Your task to perform on an android device: turn off picture-in-picture Image 0: 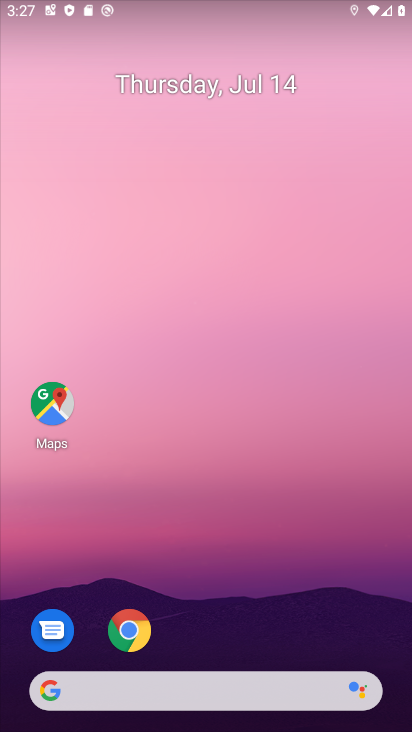
Step 0: click (132, 632)
Your task to perform on an android device: turn off picture-in-picture Image 1: 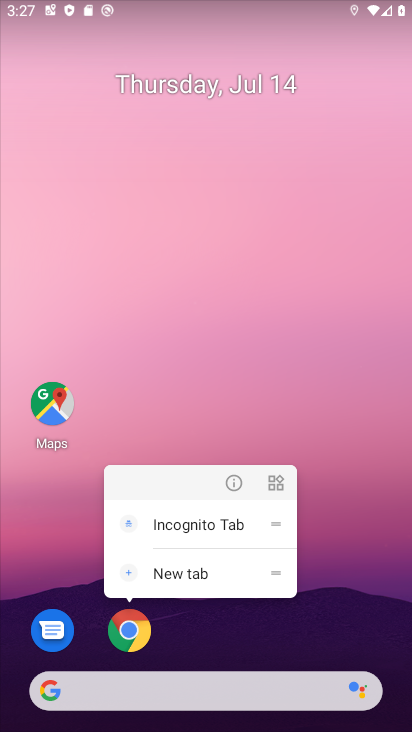
Step 1: click (230, 483)
Your task to perform on an android device: turn off picture-in-picture Image 2: 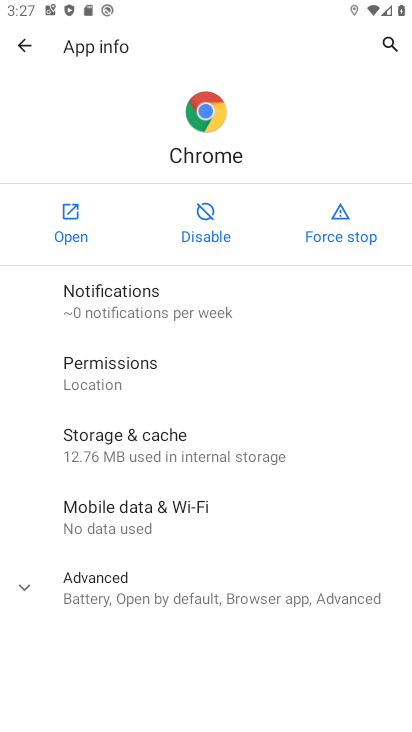
Step 2: drag from (230, 483) to (142, 120)
Your task to perform on an android device: turn off picture-in-picture Image 3: 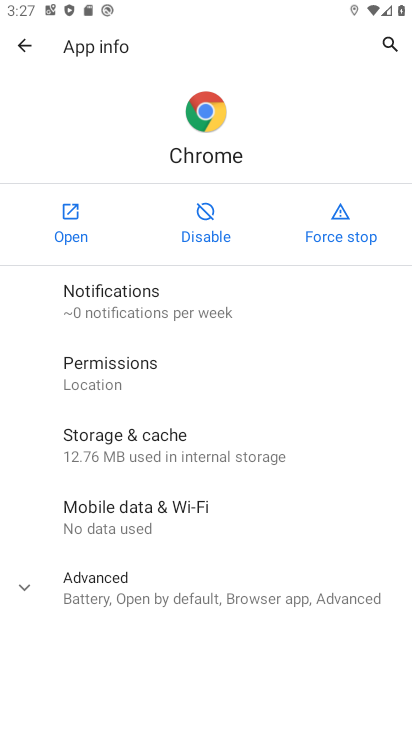
Step 3: click (200, 589)
Your task to perform on an android device: turn off picture-in-picture Image 4: 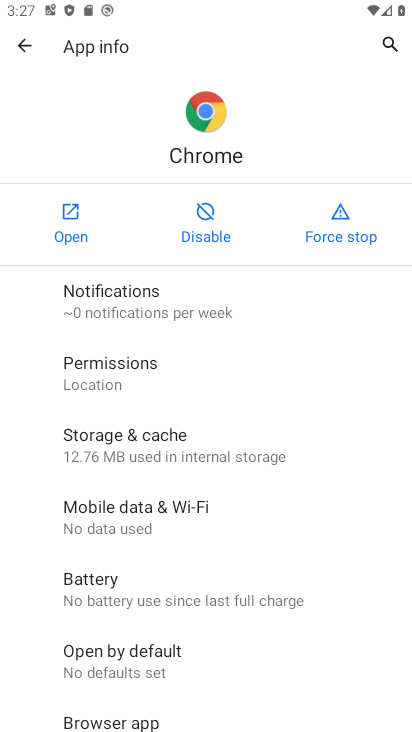
Step 4: drag from (272, 667) to (156, 189)
Your task to perform on an android device: turn off picture-in-picture Image 5: 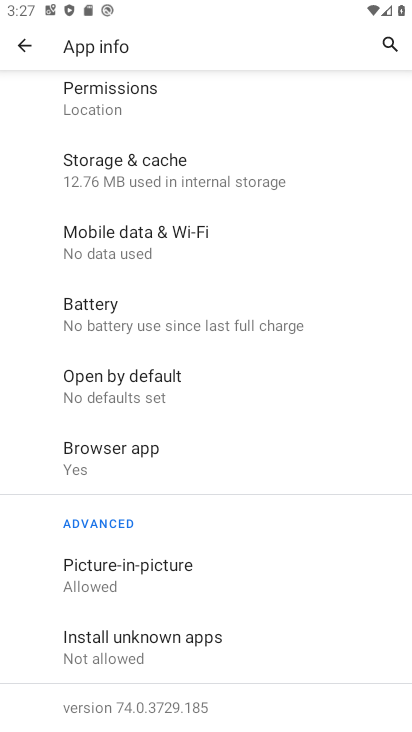
Step 5: click (108, 573)
Your task to perform on an android device: turn off picture-in-picture Image 6: 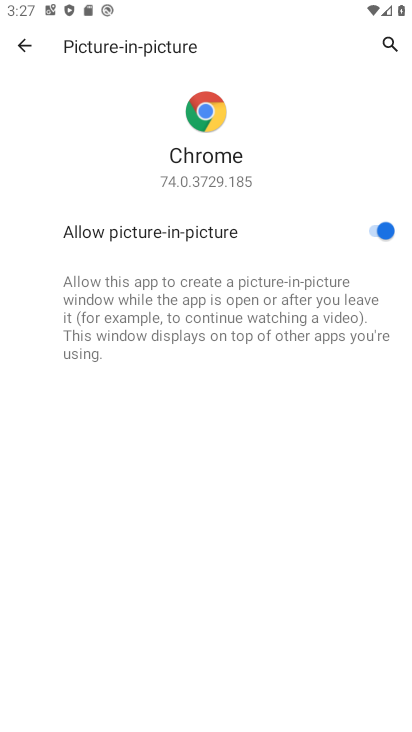
Step 6: click (381, 229)
Your task to perform on an android device: turn off picture-in-picture Image 7: 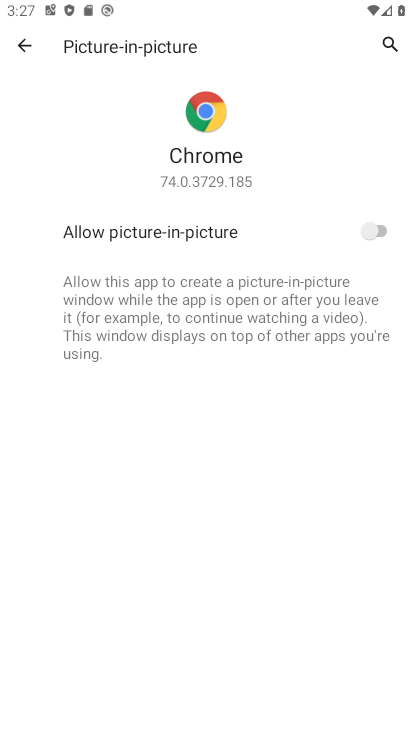
Step 7: task complete